Your task to perform on an android device: open app "Speedtest by Ookla" Image 0: 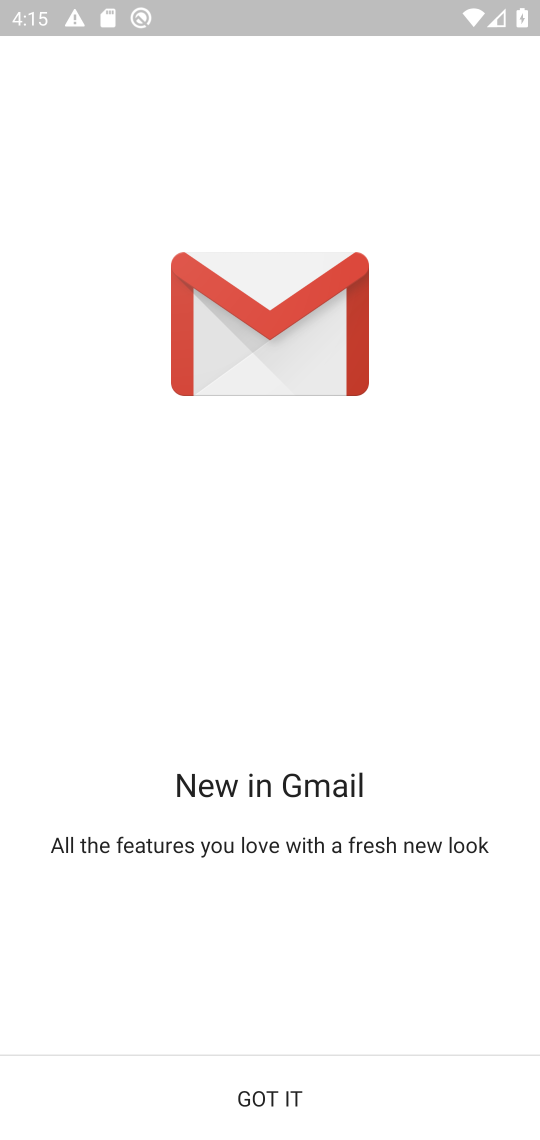
Step 0: press back button
Your task to perform on an android device: open app "Speedtest by Ookla" Image 1: 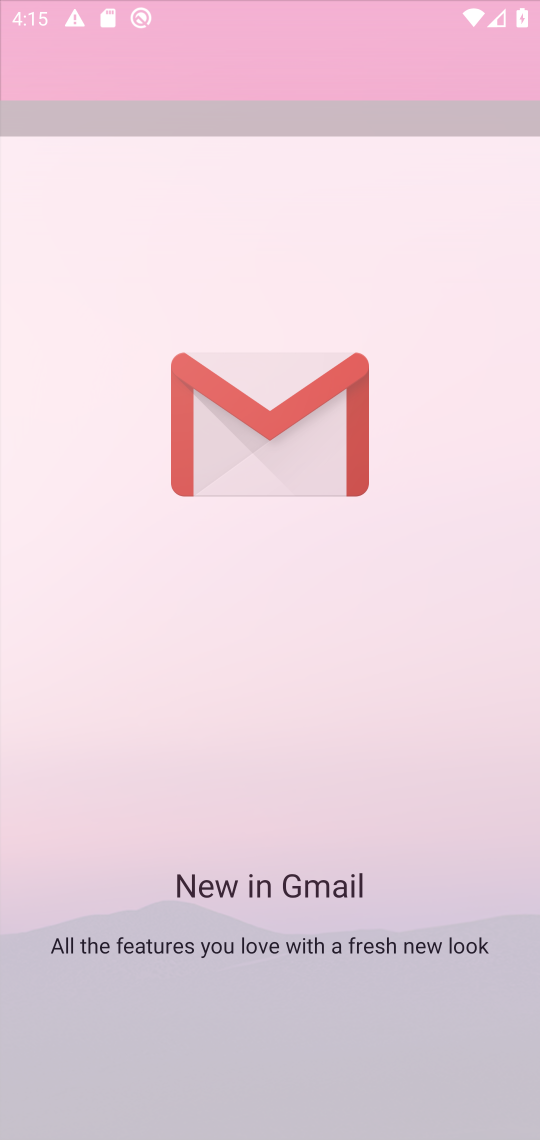
Step 1: press home button
Your task to perform on an android device: open app "Speedtest by Ookla" Image 2: 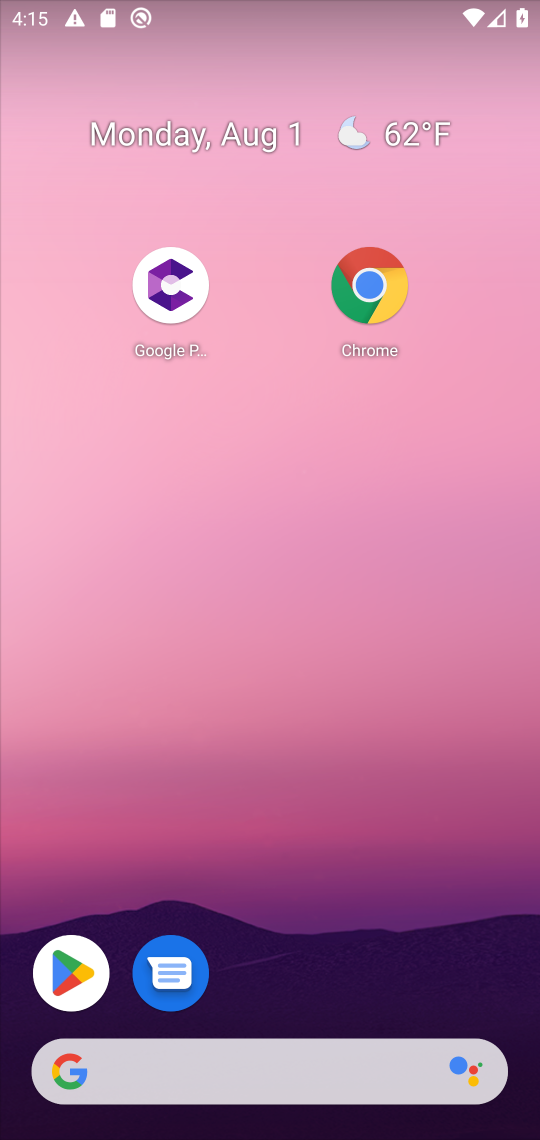
Step 2: drag from (312, 1036) to (231, 40)
Your task to perform on an android device: open app "Speedtest by Ookla" Image 3: 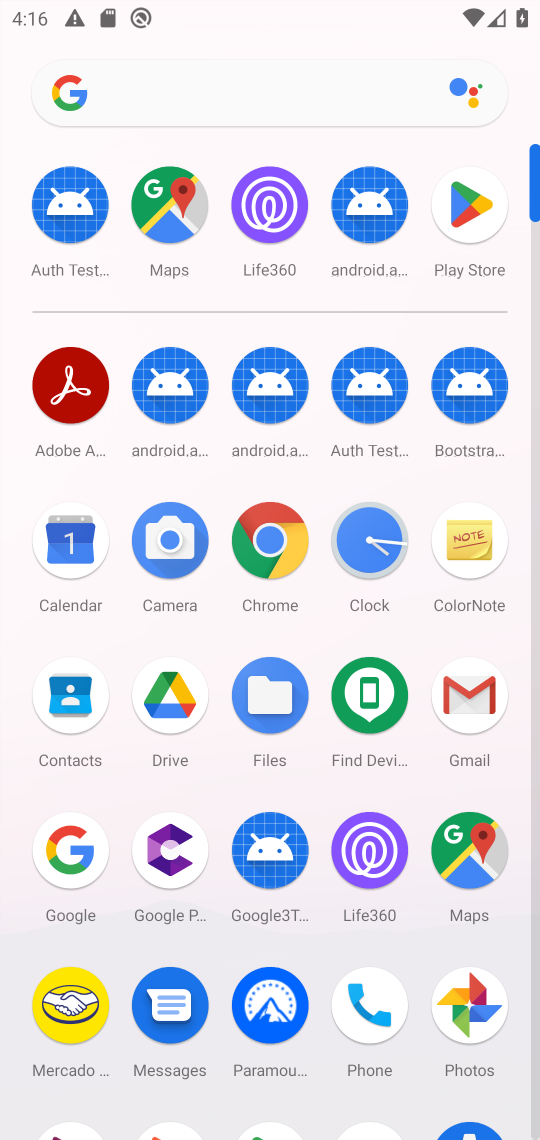
Step 3: click (465, 203)
Your task to perform on an android device: open app "Speedtest by Ookla" Image 4: 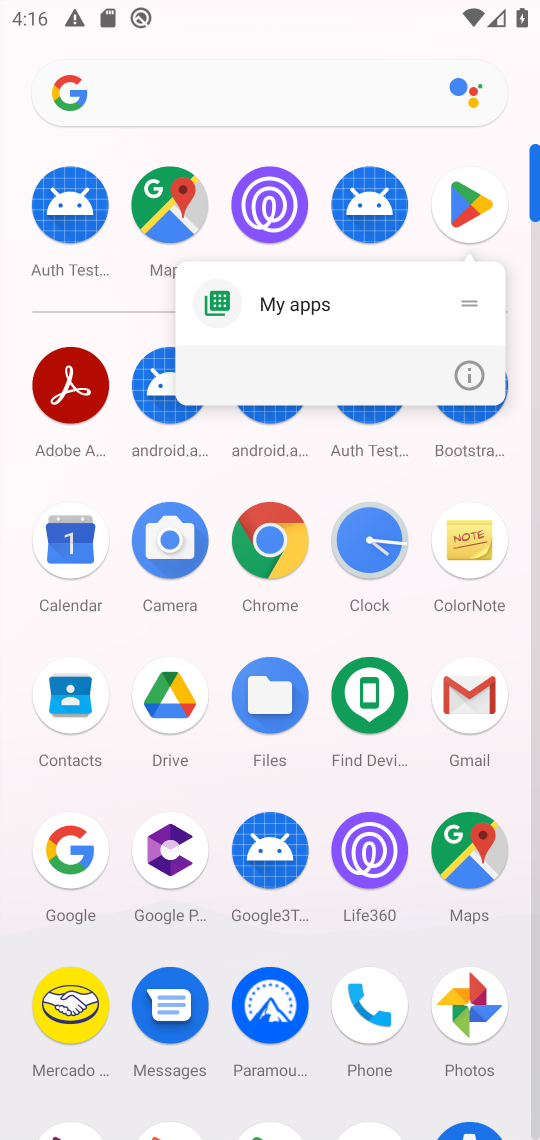
Step 4: click (467, 220)
Your task to perform on an android device: open app "Speedtest by Ookla" Image 5: 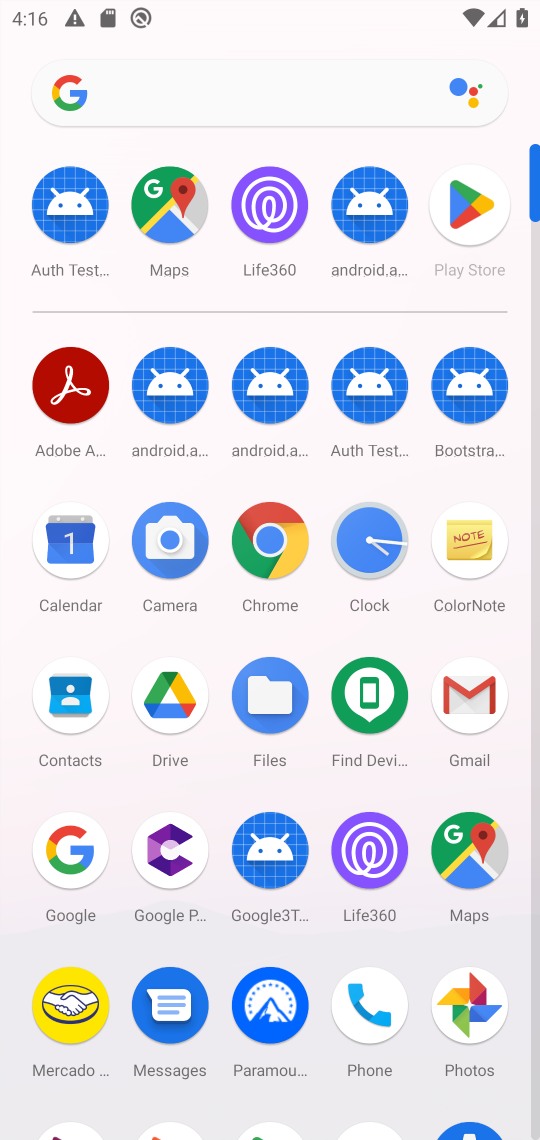
Step 5: click (467, 220)
Your task to perform on an android device: open app "Speedtest by Ookla" Image 6: 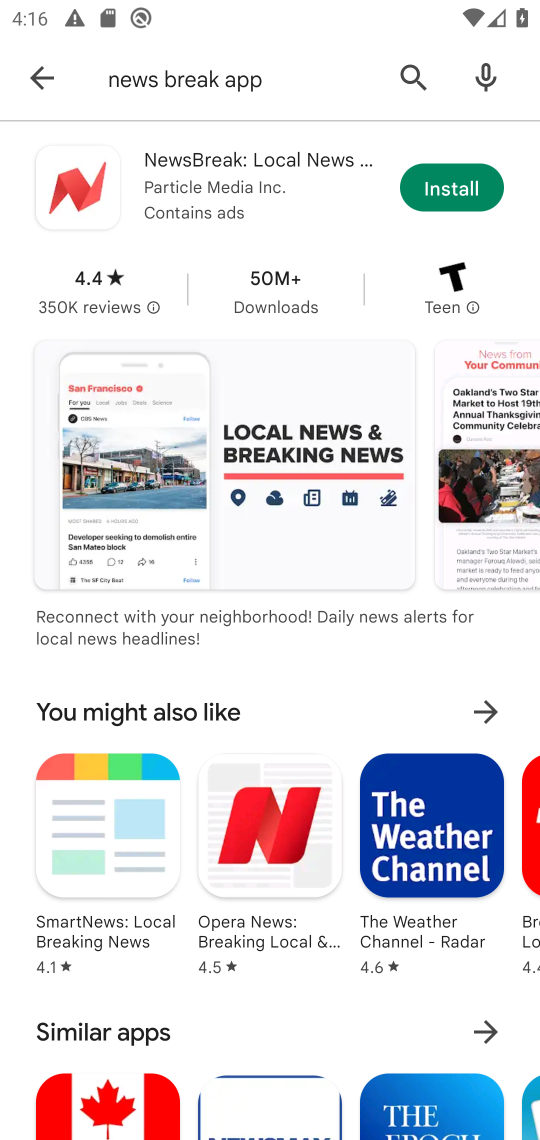
Step 6: click (41, 65)
Your task to perform on an android device: open app "Speedtest by Ookla" Image 7: 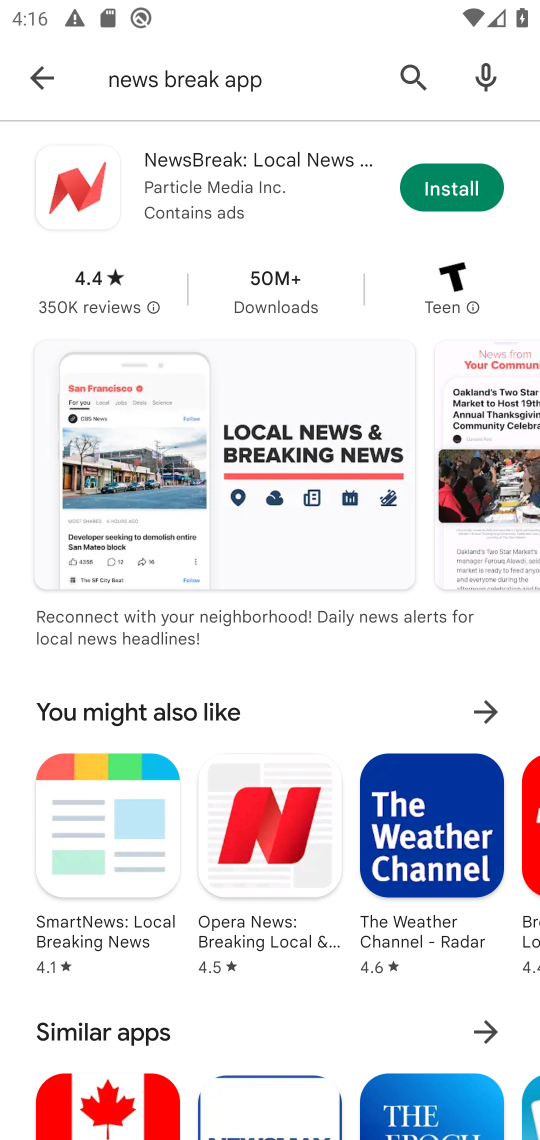
Step 7: click (39, 68)
Your task to perform on an android device: open app "Speedtest by Ookla" Image 8: 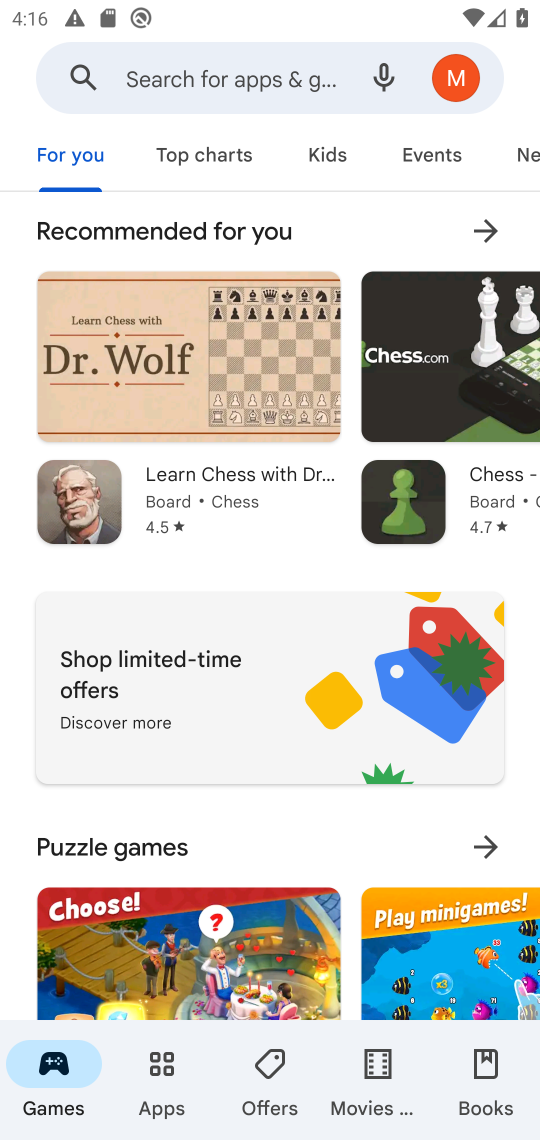
Step 8: click (190, 68)
Your task to perform on an android device: open app "Speedtest by Ookla" Image 9: 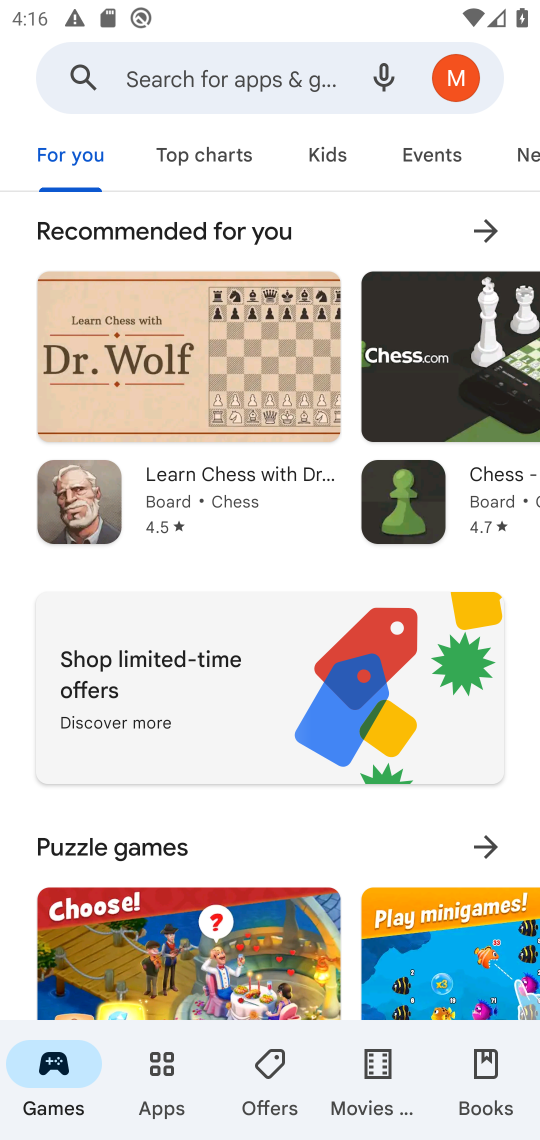
Step 9: click (189, 68)
Your task to perform on an android device: open app "Speedtest by Ookla" Image 10: 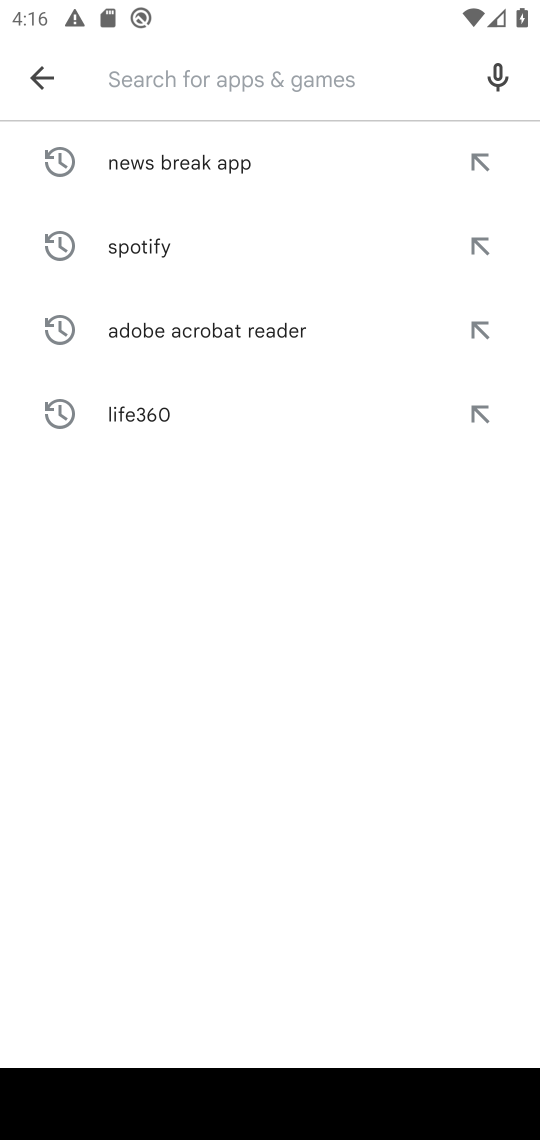
Step 10: type "speedtest by ookla"
Your task to perform on an android device: open app "Speedtest by Ookla" Image 11: 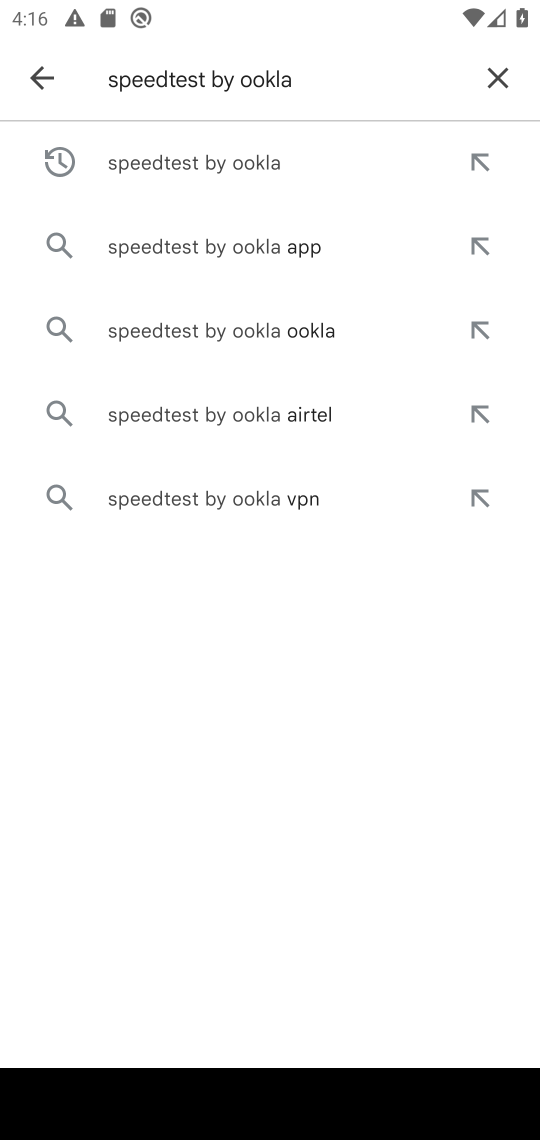
Step 11: click (239, 152)
Your task to perform on an android device: open app "Speedtest by Ookla" Image 12: 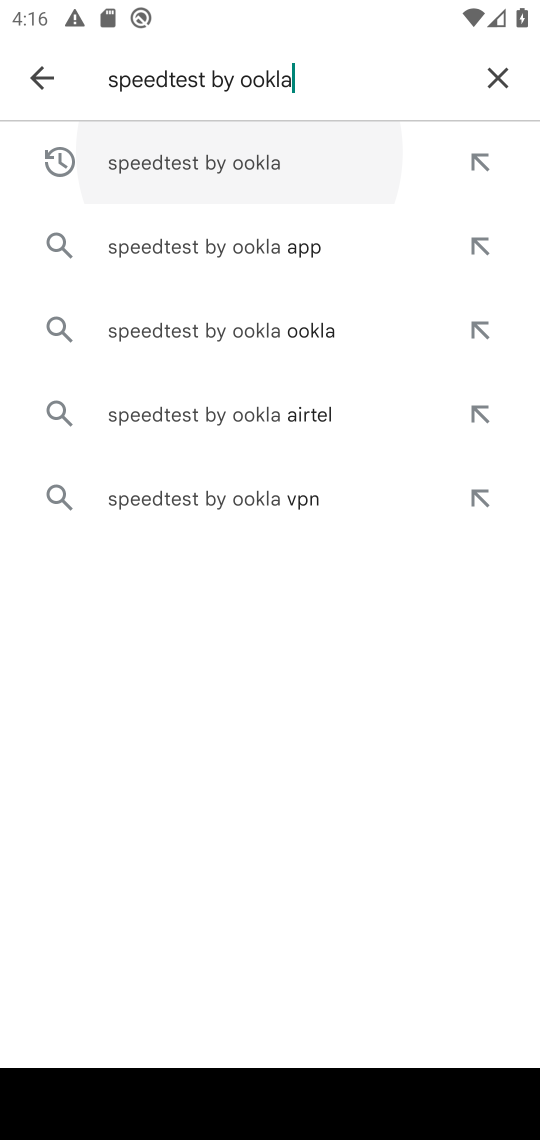
Step 12: click (239, 148)
Your task to perform on an android device: open app "Speedtest by Ookla" Image 13: 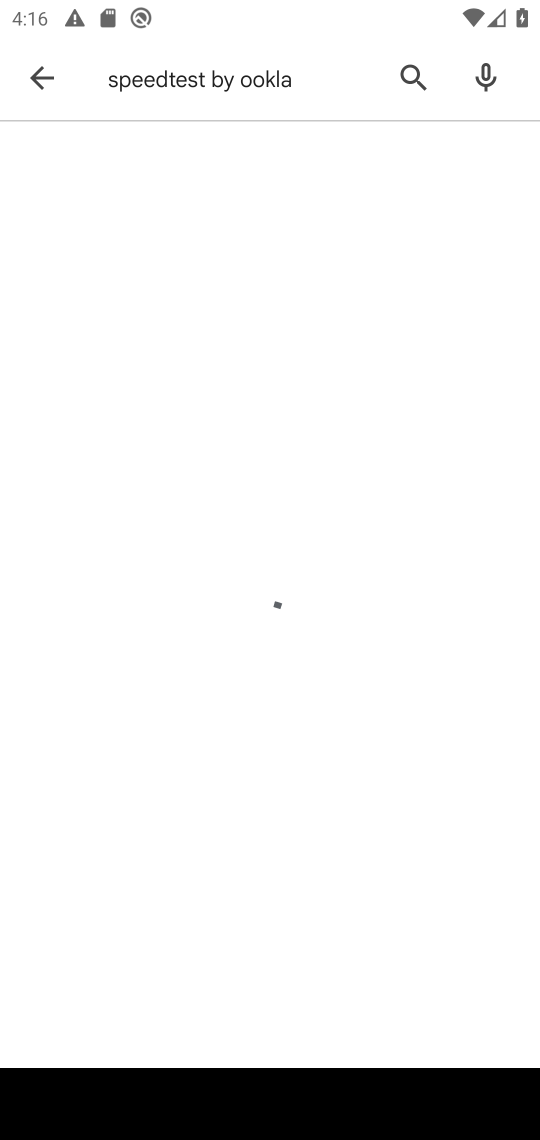
Step 13: click (257, 137)
Your task to perform on an android device: open app "Speedtest by Ookla" Image 14: 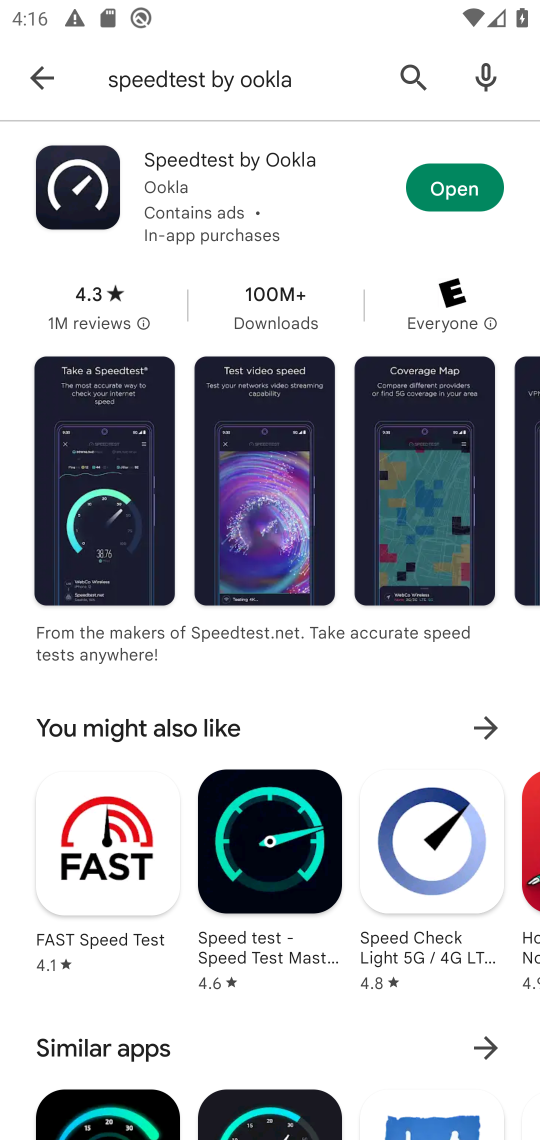
Step 14: click (427, 181)
Your task to perform on an android device: open app "Speedtest by Ookla" Image 15: 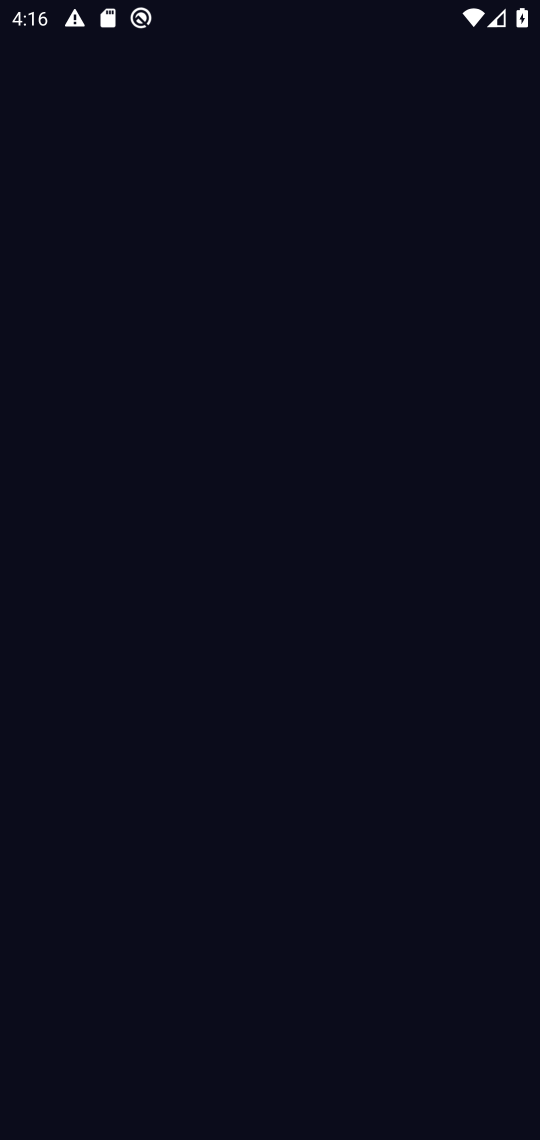
Step 15: task complete